Your task to perform on an android device: set the timer Image 0: 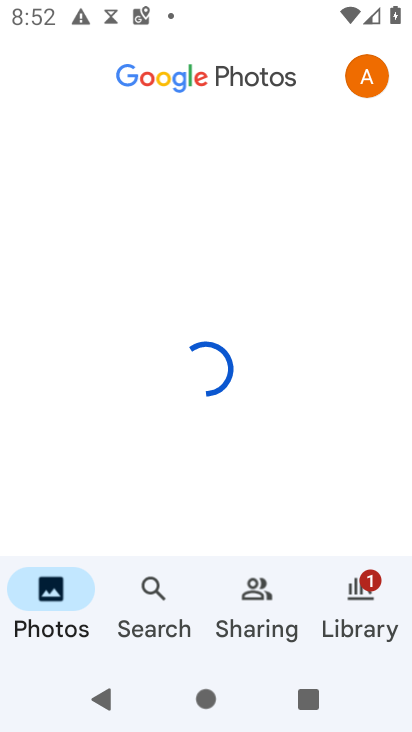
Step 0: press home button
Your task to perform on an android device: set the timer Image 1: 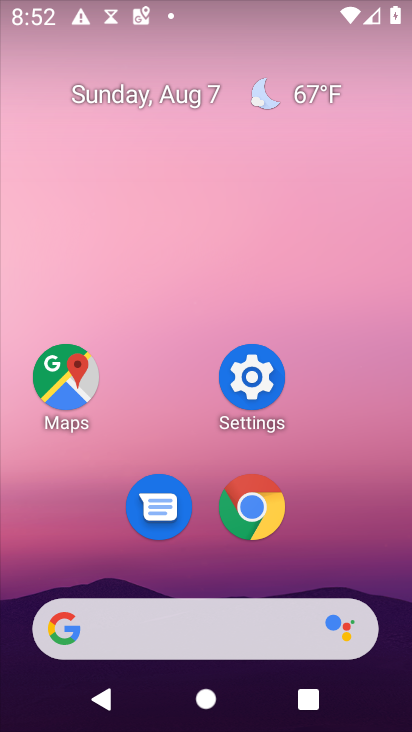
Step 1: drag from (197, 637) to (362, 108)
Your task to perform on an android device: set the timer Image 2: 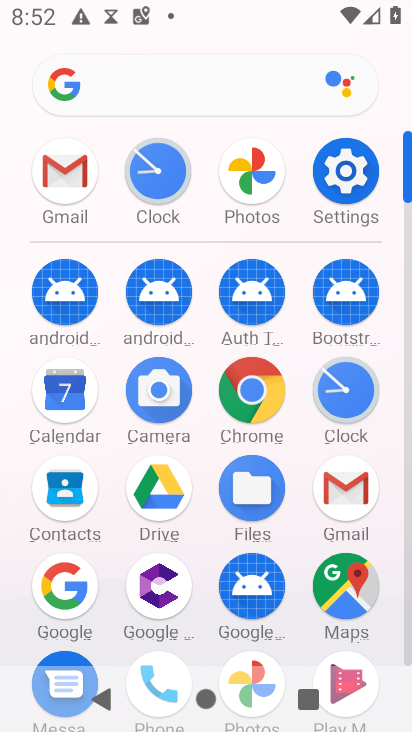
Step 2: click (344, 403)
Your task to perform on an android device: set the timer Image 3: 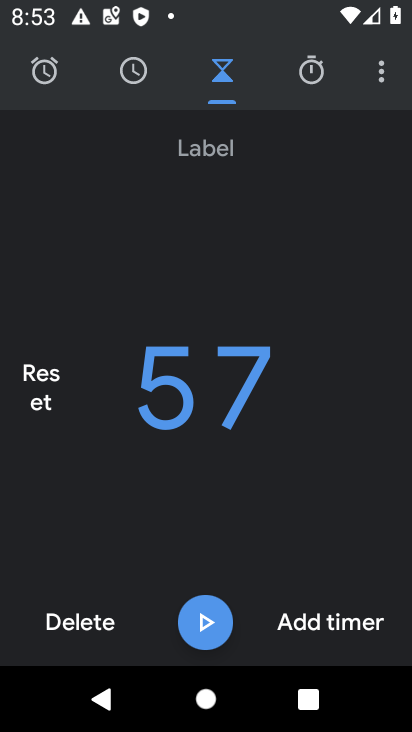
Step 3: task complete